Your task to perform on an android device: Go to battery settings Image 0: 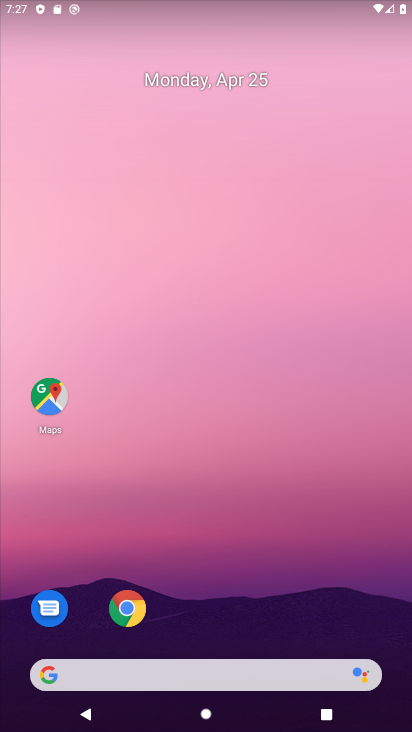
Step 0: drag from (297, 534) to (271, 94)
Your task to perform on an android device: Go to battery settings Image 1: 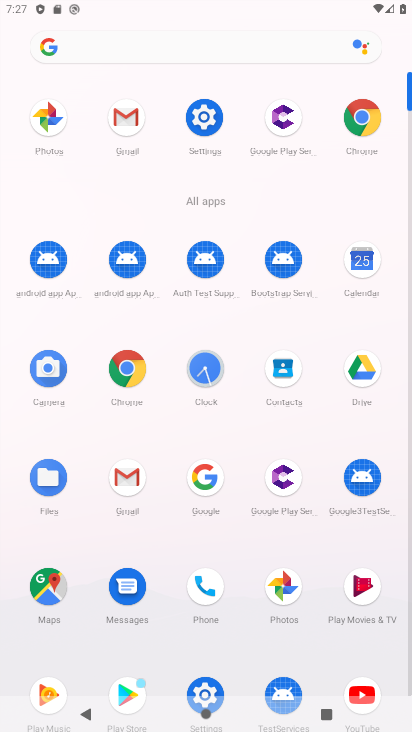
Step 1: click (208, 122)
Your task to perform on an android device: Go to battery settings Image 2: 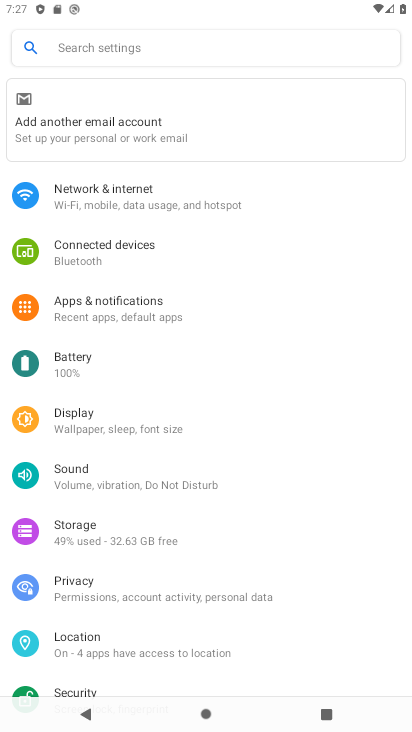
Step 2: click (99, 367)
Your task to perform on an android device: Go to battery settings Image 3: 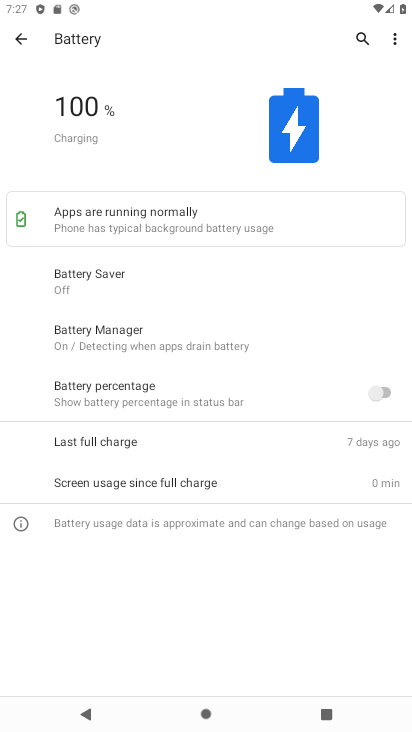
Step 3: task complete